Your task to perform on an android device: turn notification dots on Image 0: 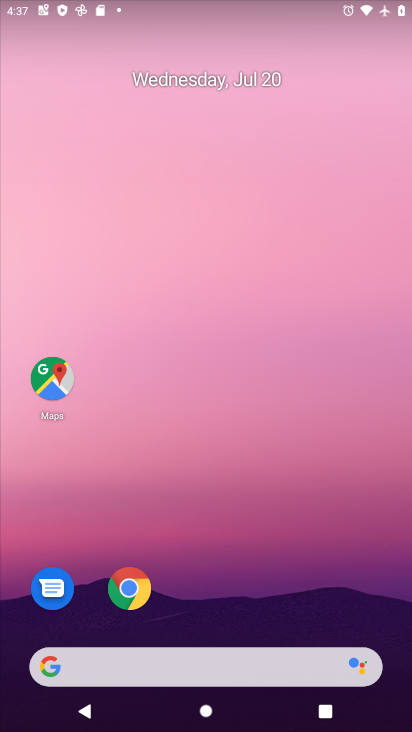
Step 0: drag from (282, 570) to (286, 89)
Your task to perform on an android device: turn notification dots on Image 1: 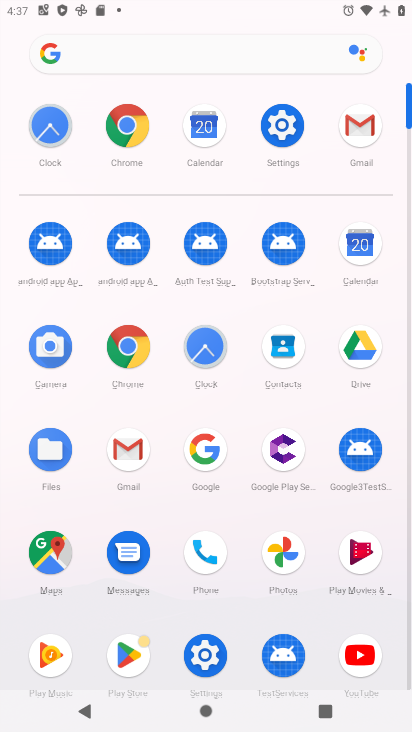
Step 1: click (277, 126)
Your task to perform on an android device: turn notification dots on Image 2: 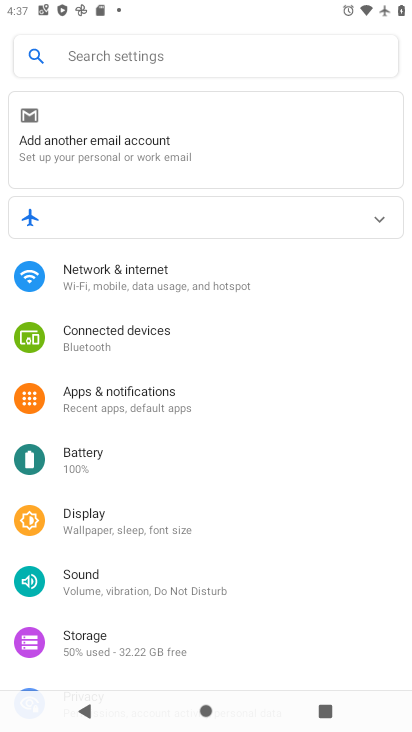
Step 2: click (148, 402)
Your task to perform on an android device: turn notification dots on Image 3: 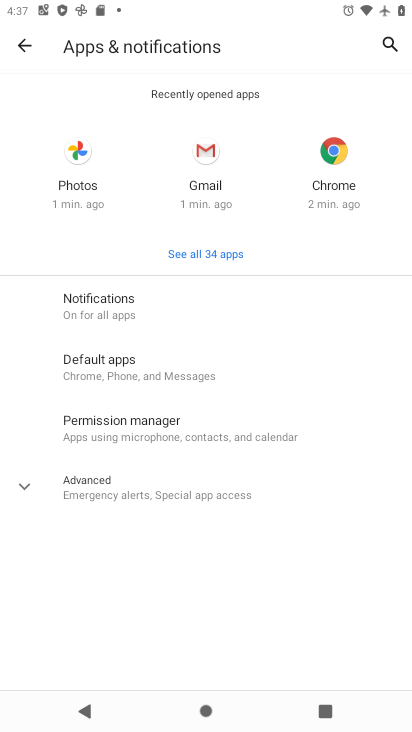
Step 3: click (125, 315)
Your task to perform on an android device: turn notification dots on Image 4: 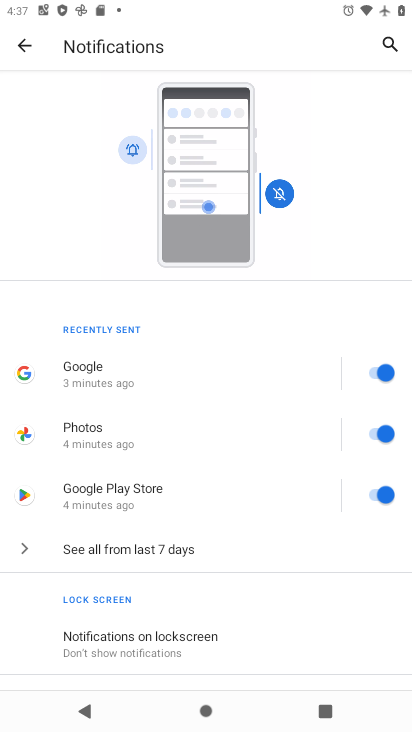
Step 4: drag from (191, 608) to (259, 189)
Your task to perform on an android device: turn notification dots on Image 5: 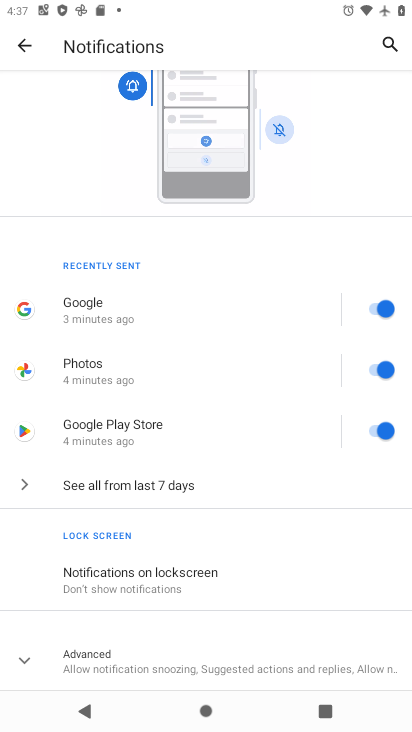
Step 5: click (128, 665)
Your task to perform on an android device: turn notification dots on Image 6: 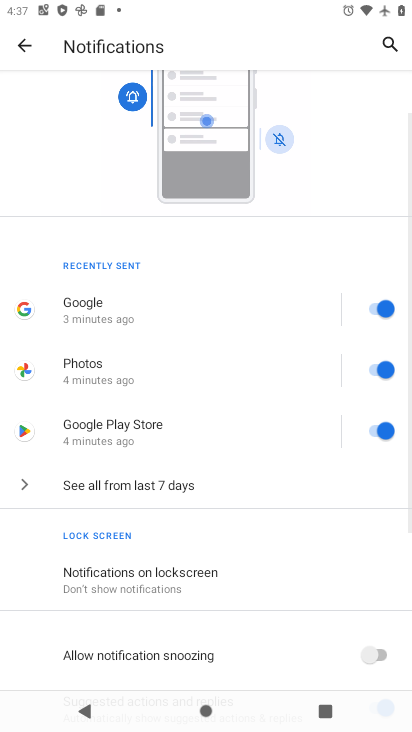
Step 6: task complete